Your task to perform on an android device: Add "macbook pro 15 inch" to the cart on costco Image 0: 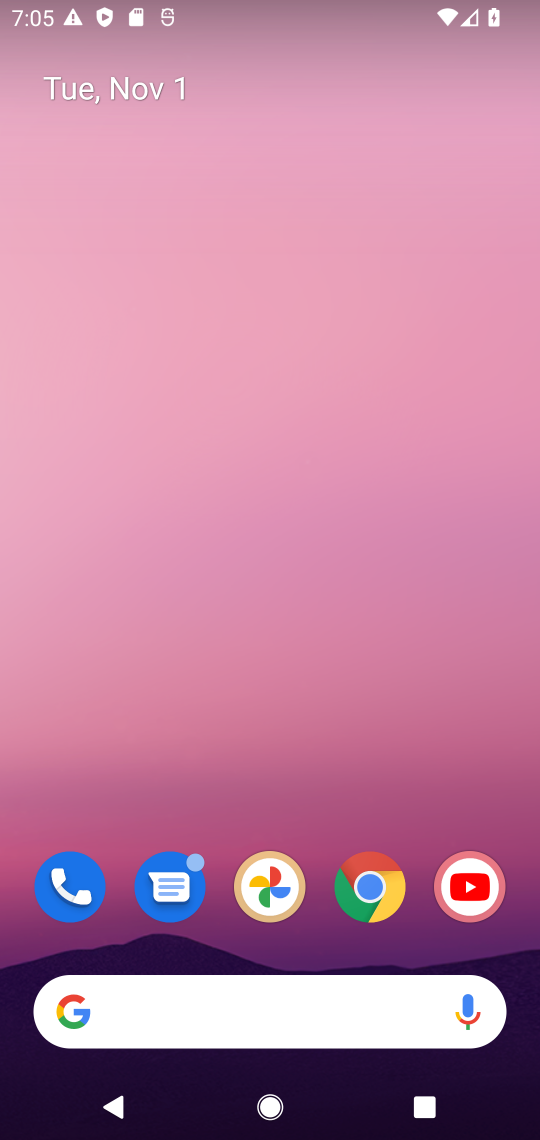
Step 0: drag from (291, 902) to (369, 91)
Your task to perform on an android device: Add "macbook pro 15 inch" to the cart on costco Image 1: 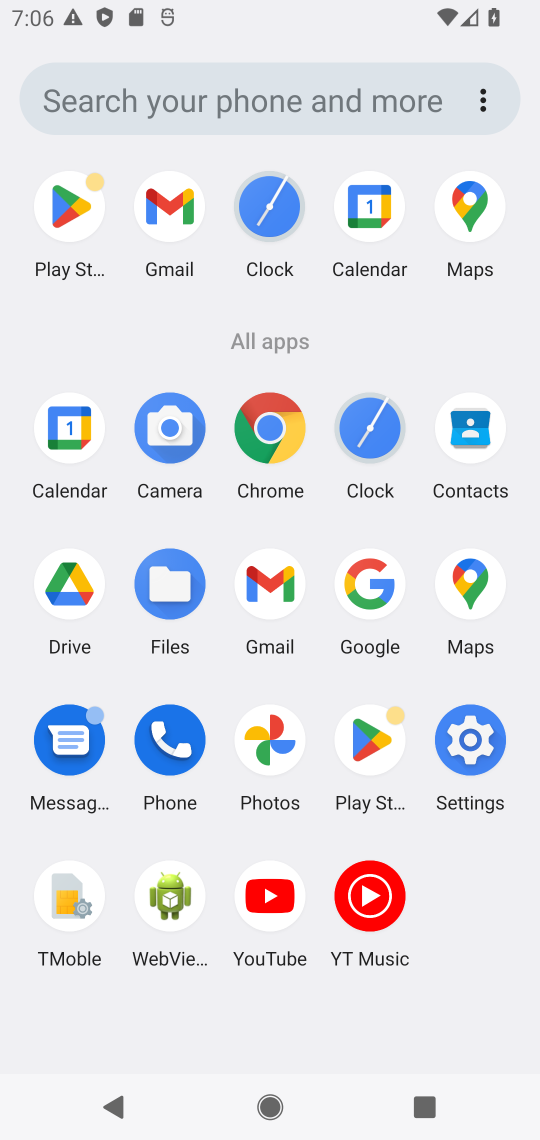
Step 1: click (364, 560)
Your task to perform on an android device: Add "macbook pro 15 inch" to the cart on costco Image 2: 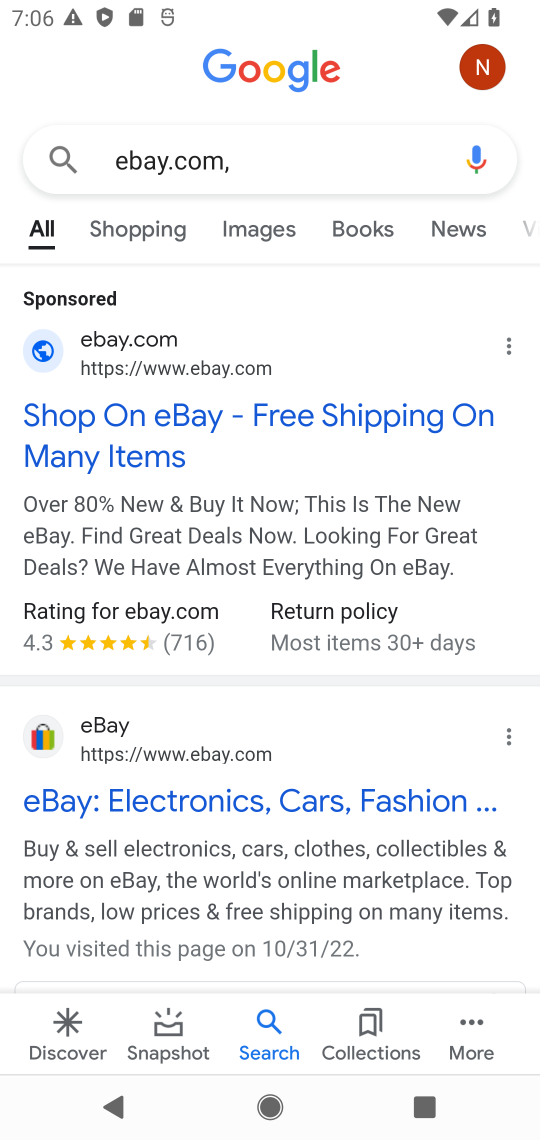
Step 2: click (268, 157)
Your task to perform on an android device: Add "macbook pro 15 inch" to the cart on costco Image 3: 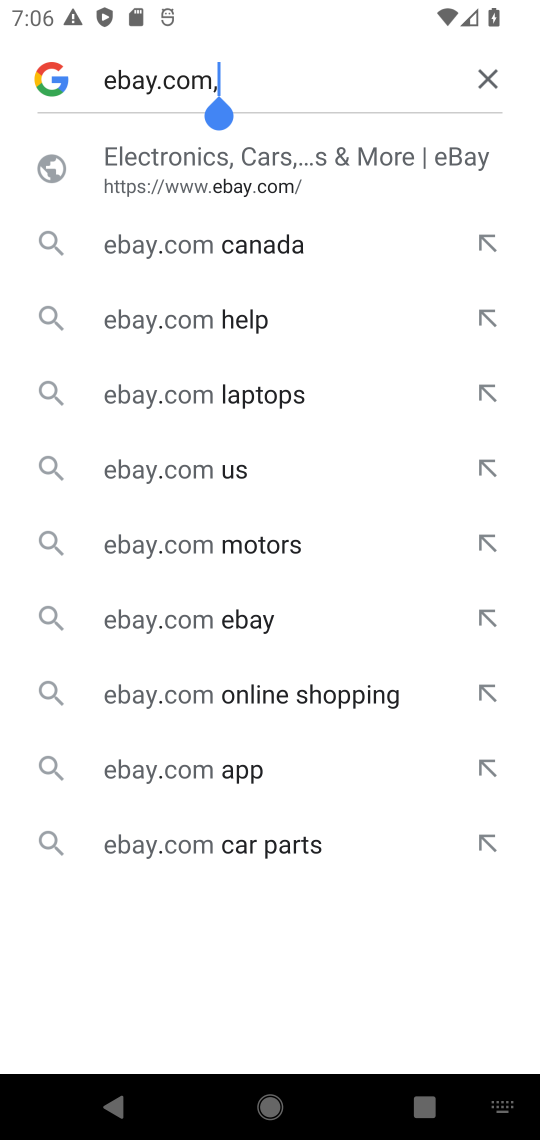
Step 3: click (472, 70)
Your task to perform on an android device: Add "macbook pro 15 inch" to the cart on costco Image 4: 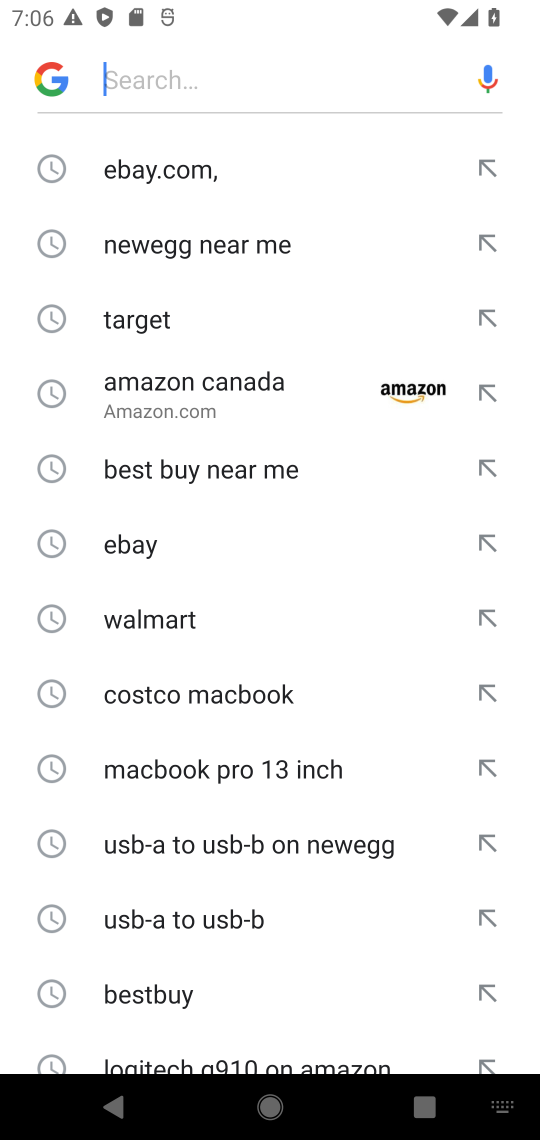
Step 4: click (154, 64)
Your task to perform on an android device: Add "macbook pro 15 inch" to the cart on costco Image 5: 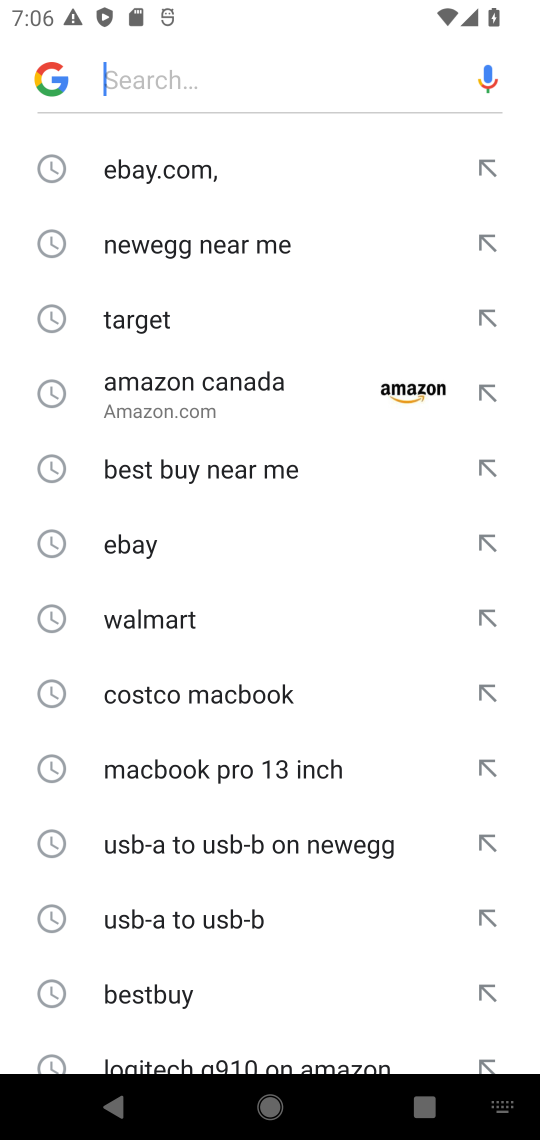
Step 5: type "costco "
Your task to perform on an android device: Add "macbook pro 15 inch" to the cart on costco Image 6: 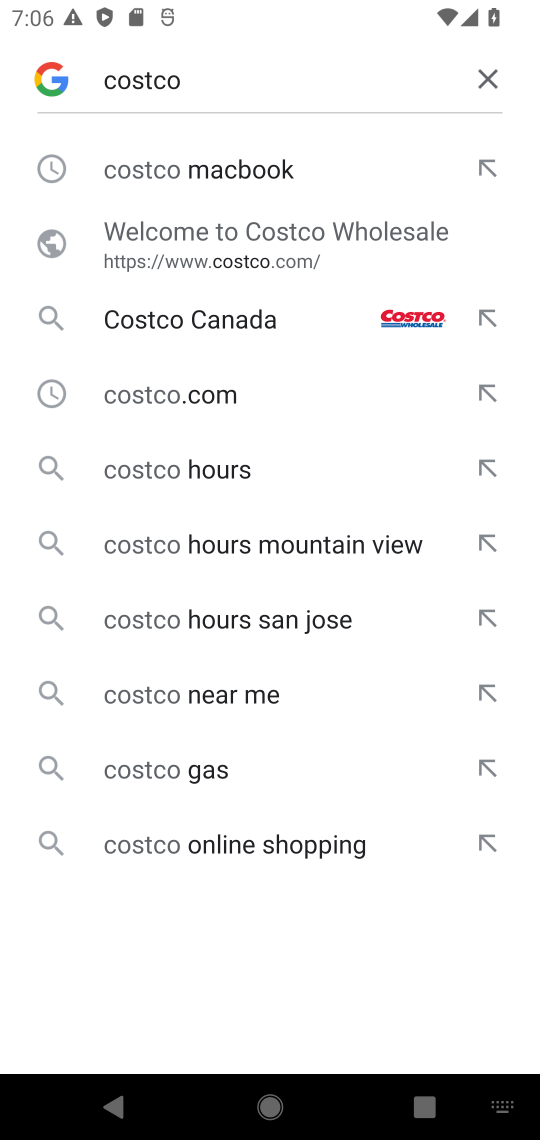
Step 6: click (224, 395)
Your task to perform on an android device: Add "macbook pro 15 inch" to the cart on costco Image 7: 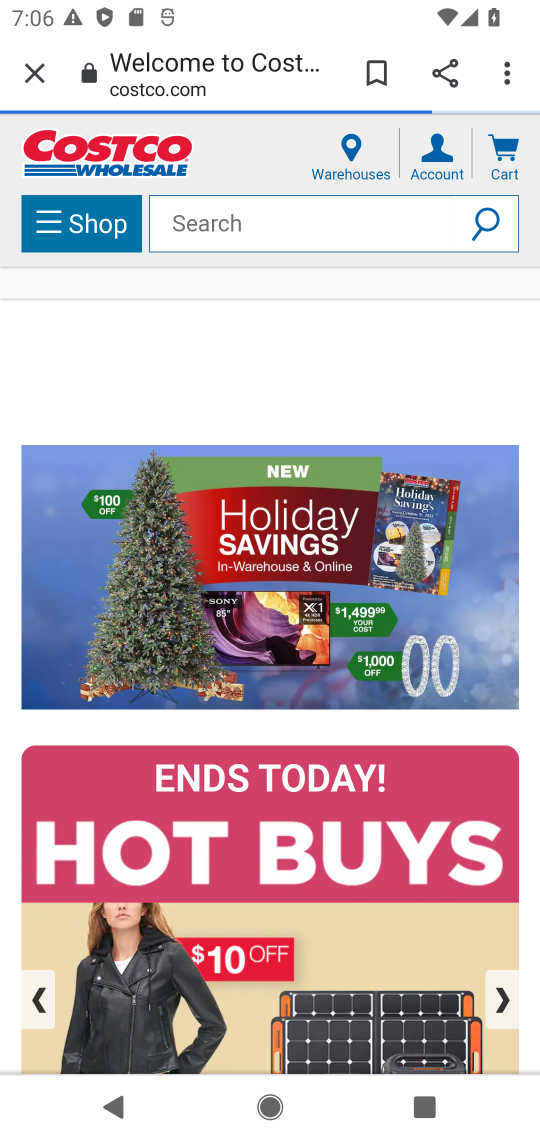
Step 7: click (258, 216)
Your task to perform on an android device: Add "macbook pro 15 inch" to the cart on costco Image 8: 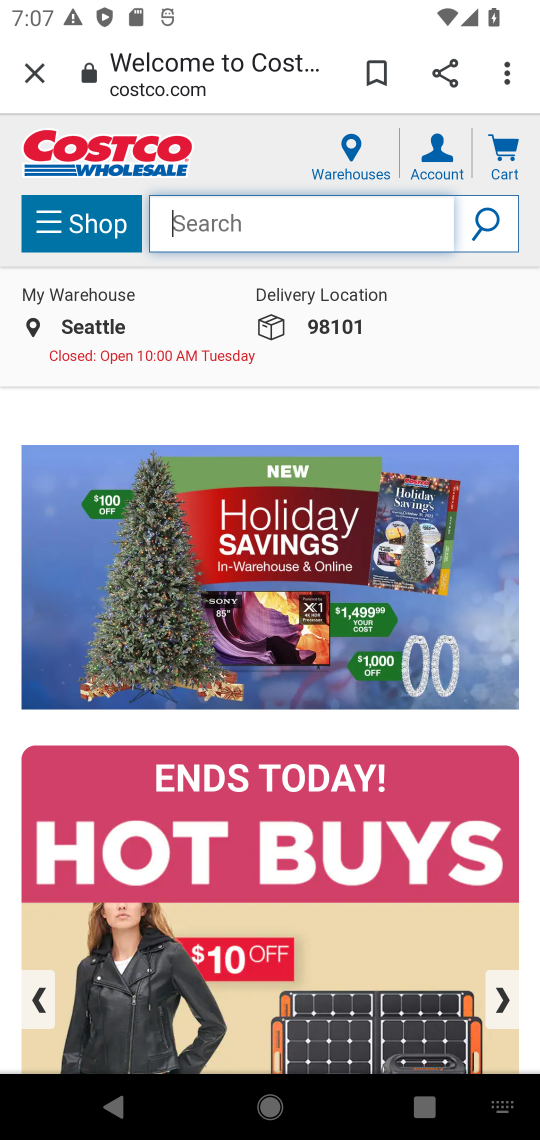
Step 8: click (261, 220)
Your task to perform on an android device: Add "macbook pro 15 inch" to the cart on costco Image 9: 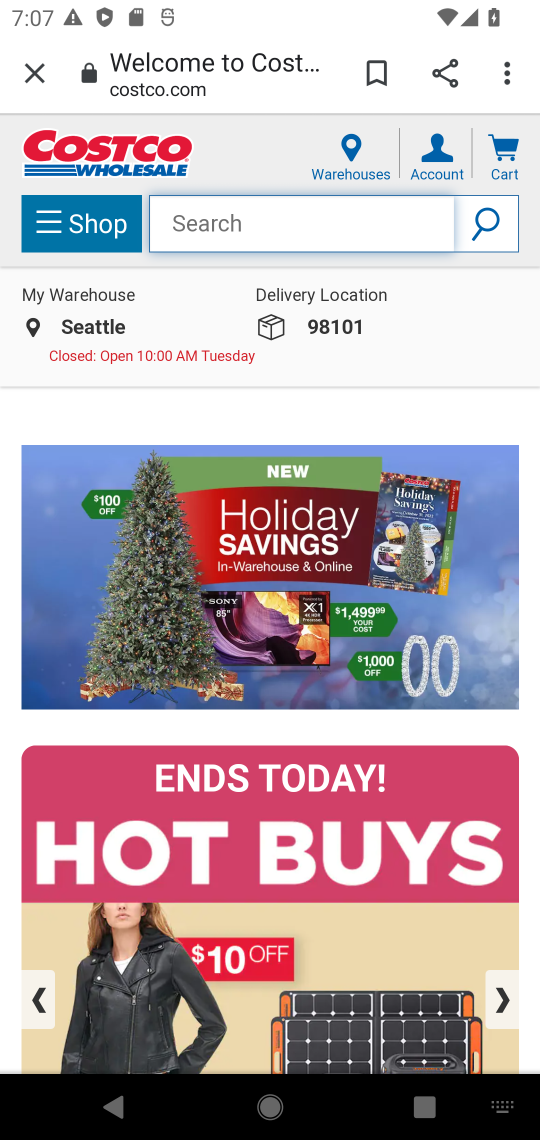
Step 9: type "macbook pro 15 inch "
Your task to perform on an android device: Add "macbook pro 15 inch" to the cart on costco Image 10: 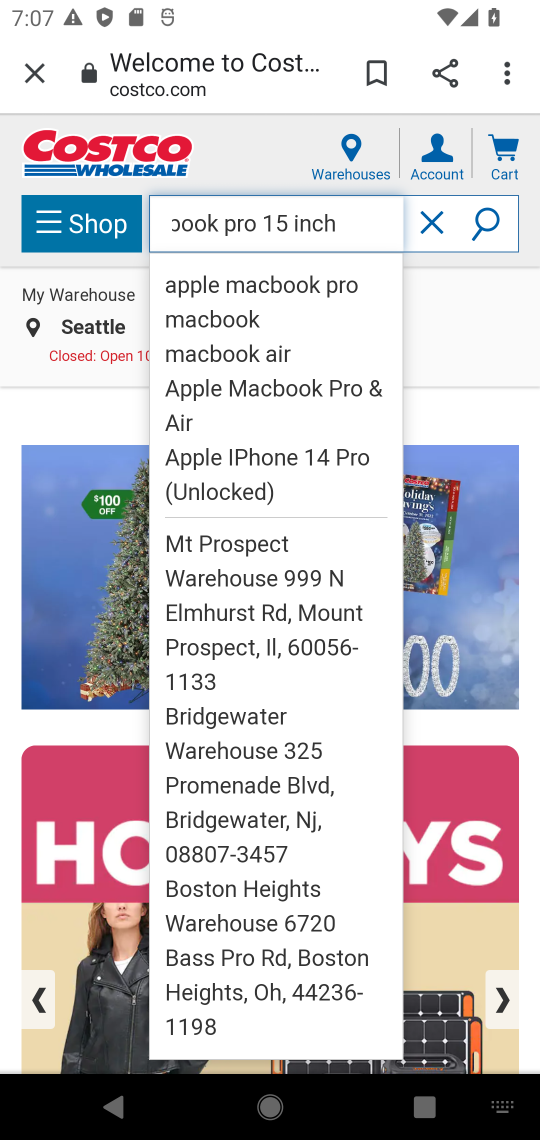
Step 10: click (211, 313)
Your task to perform on an android device: Add "macbook pro 15 inch" to the cart on costco Image 11: 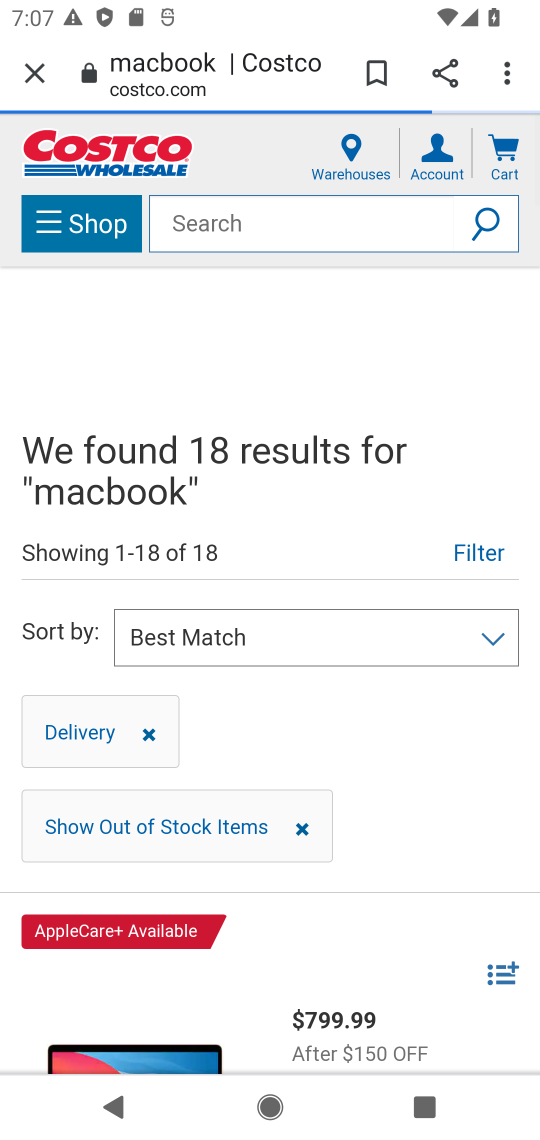
Step 11: drag from (348, 932) to (330, 482)
Your task to perform on an android device: Add "macbook pro 15 inch" to the cart on costco Image 12: 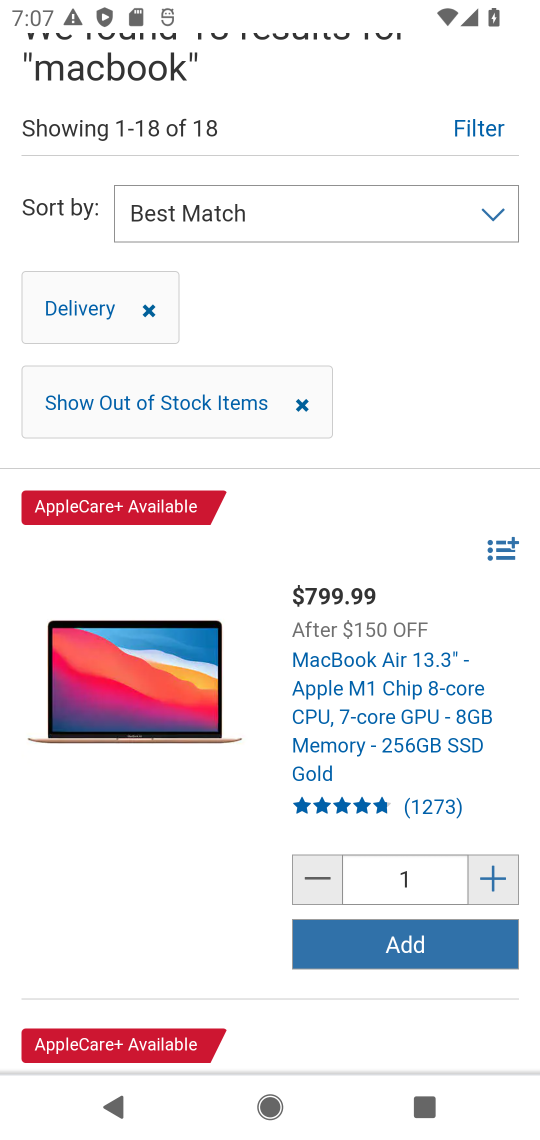
Step 12: click (384, 928)
Your task to perform on an android device: Add "macbook pro 15 inch" to the cart on costco Image 13: 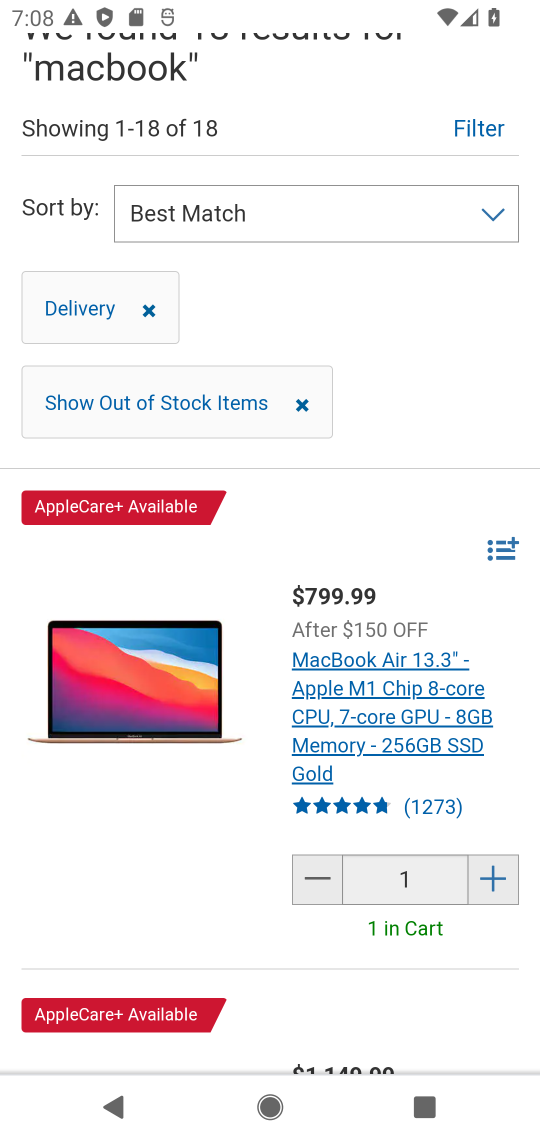
Step 13: task complete